Your task to perform on an android device: Find coffee shops on Maps Image 0: 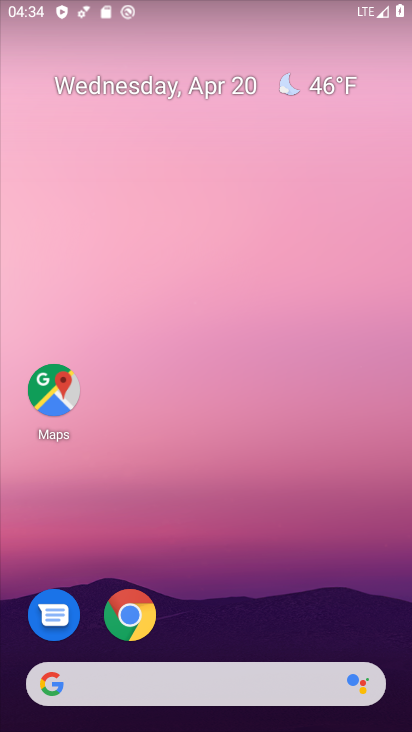
Step 0: click (64, 390)
Your task to perform on an android device: Find coffee shops on Maps Image 1: 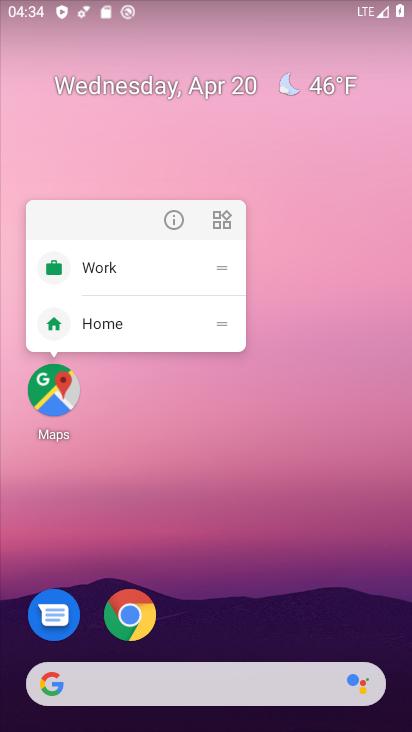
Step 1: click (56, 387)
Your task to perform on an android device: Find coffee shops on Maps Image 2: 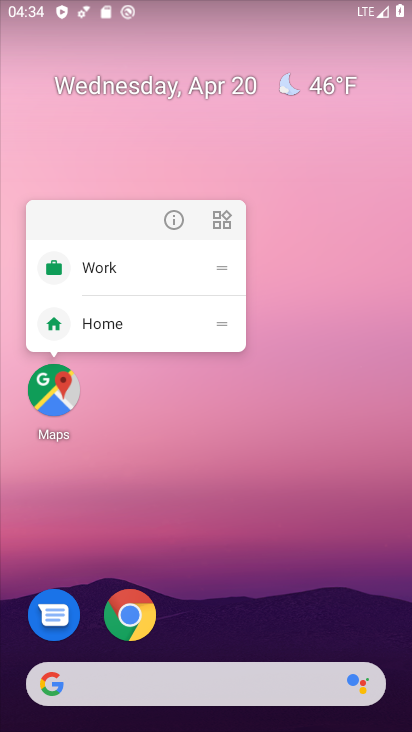
Step 2: click (44, 389)
Your task to perform on an android device: Find coffee shops on Maps Image 3: 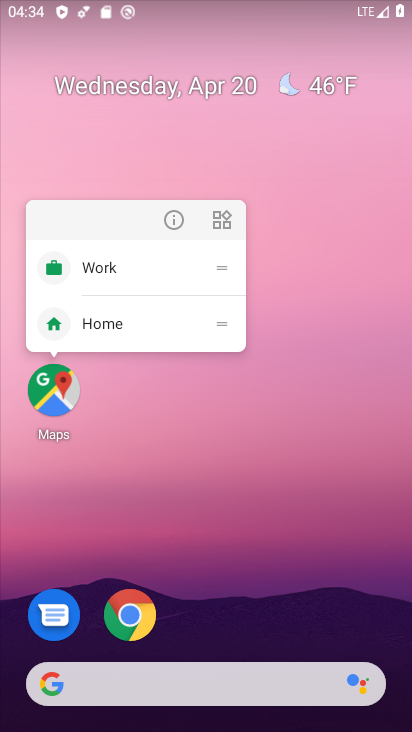
Step 3: click (43, 389)
Your task to perform on an android device: Find coffee shops on Maps Image 4: 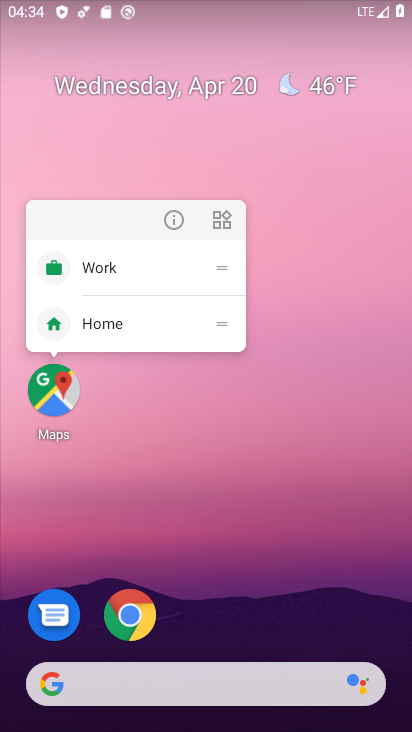
Step 4: click (67, 388)
Your task to perform on an android device: Find coffee shops on Maps Image 5: 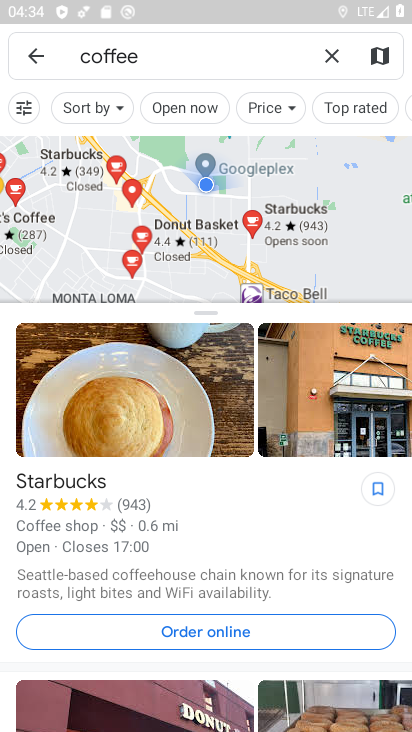
Step 5: task complete